Your task to perform on an android device: Show me popular games on the Play Store Image 0: 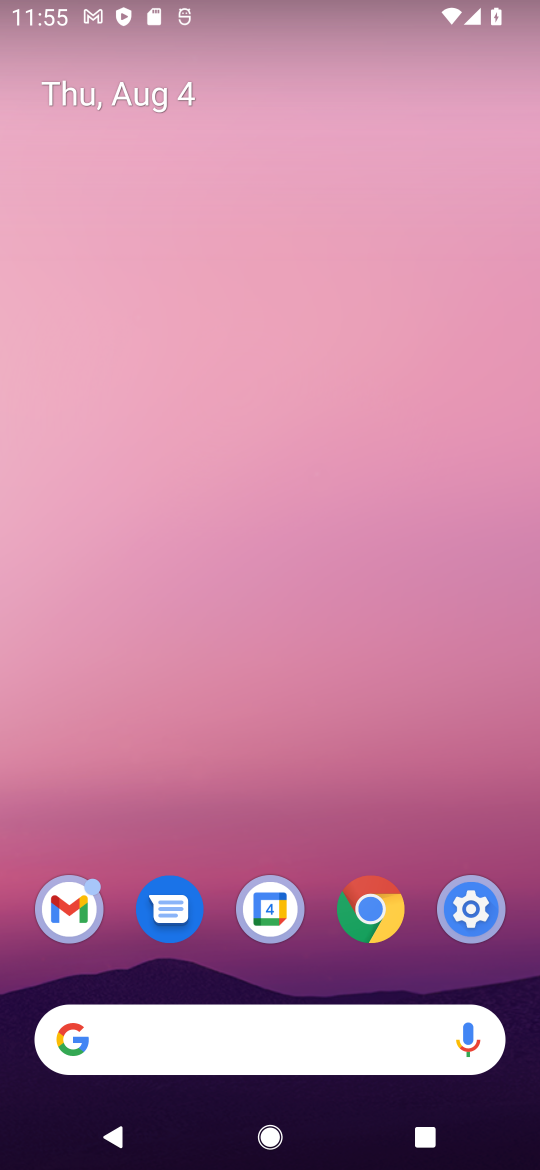
Step 0: drag from (322, 628) to (320, 275)
Your task to perform on an android device: Show me popular games on the Play Store Image 1: 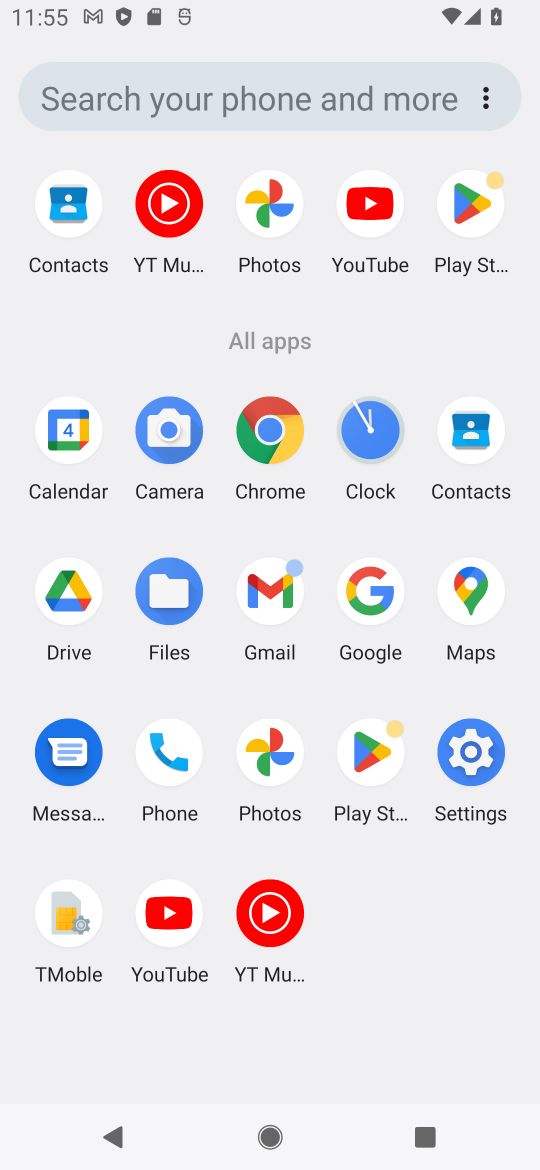
Step 1: click (368, 770)
Your task to perform on an android device: Show me popular games on the Play Store Image 2: 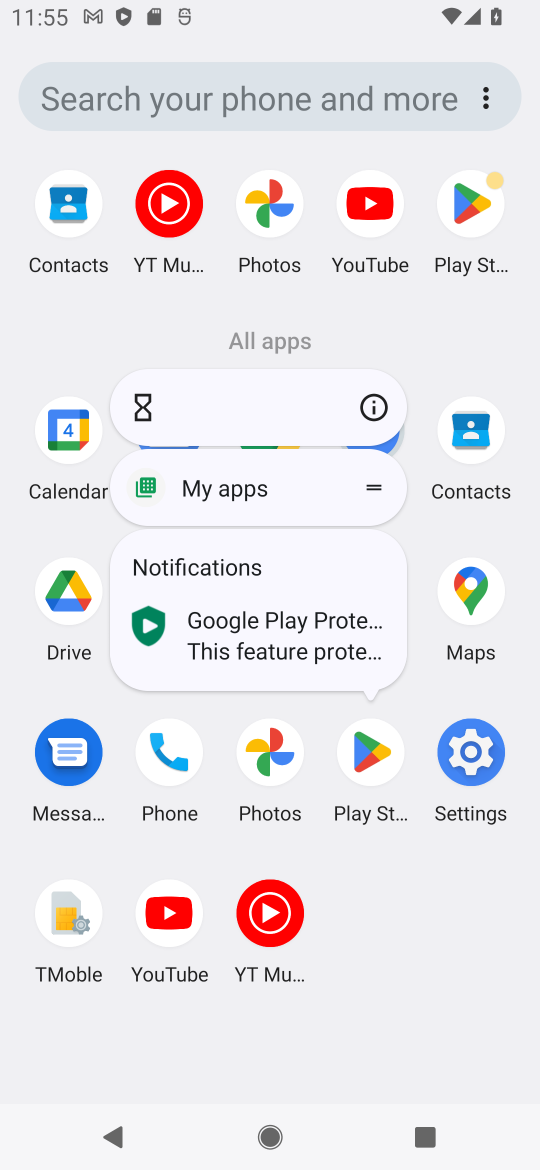
Step 2: click (385, 766)
Your task to perform on an android device: Show me popular games on the Play Store Image 3: 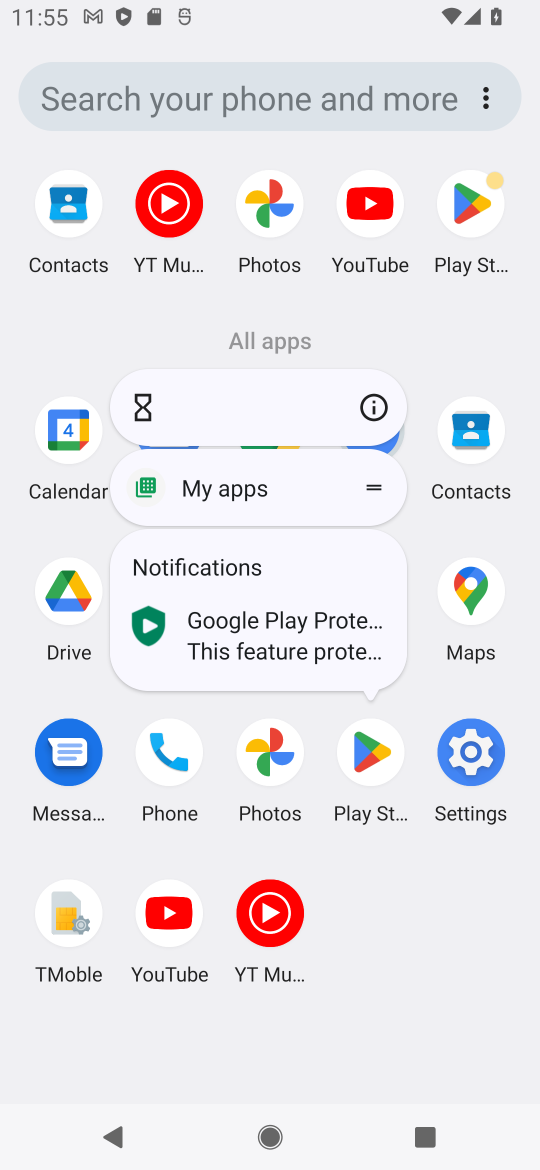
Step 3: click (435, 739)
Your task to perform on an android device: Show me popular games on the Play Store Image 4: 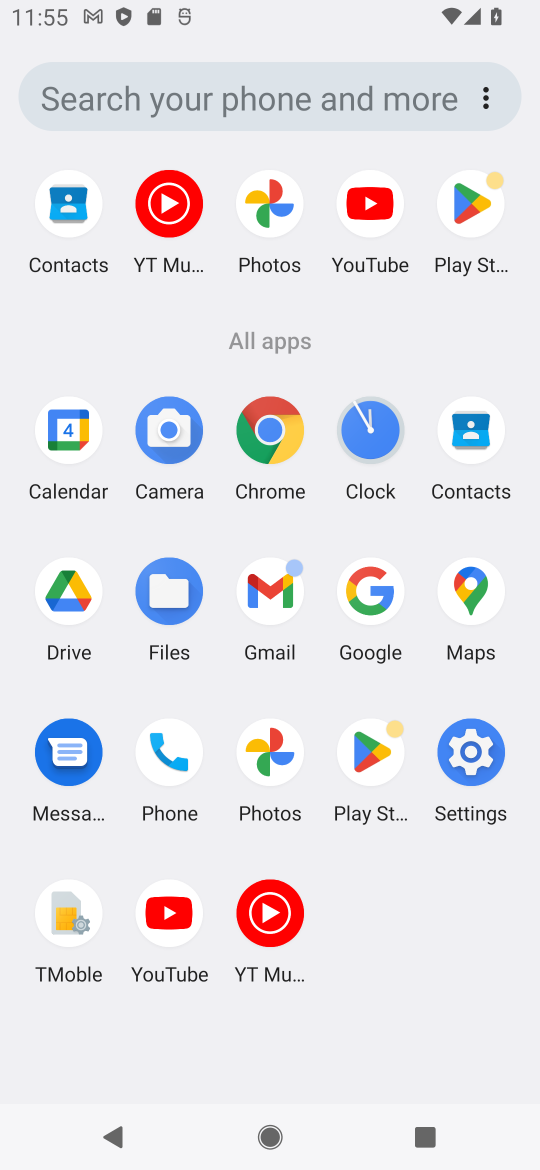
Step 4: click (380, 761)
Your task to perform on an android device: Show me popular games on the Play Store Image 5: 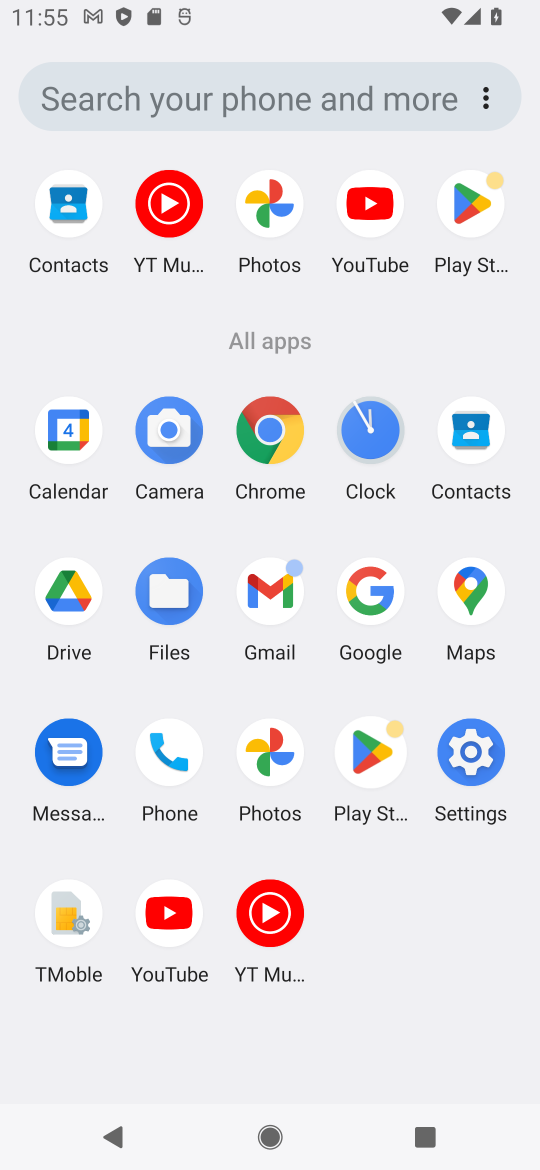
Step 5: click (380, 761)
Your task to perform on an android device: Show me popular games on the Play Store Image 6: 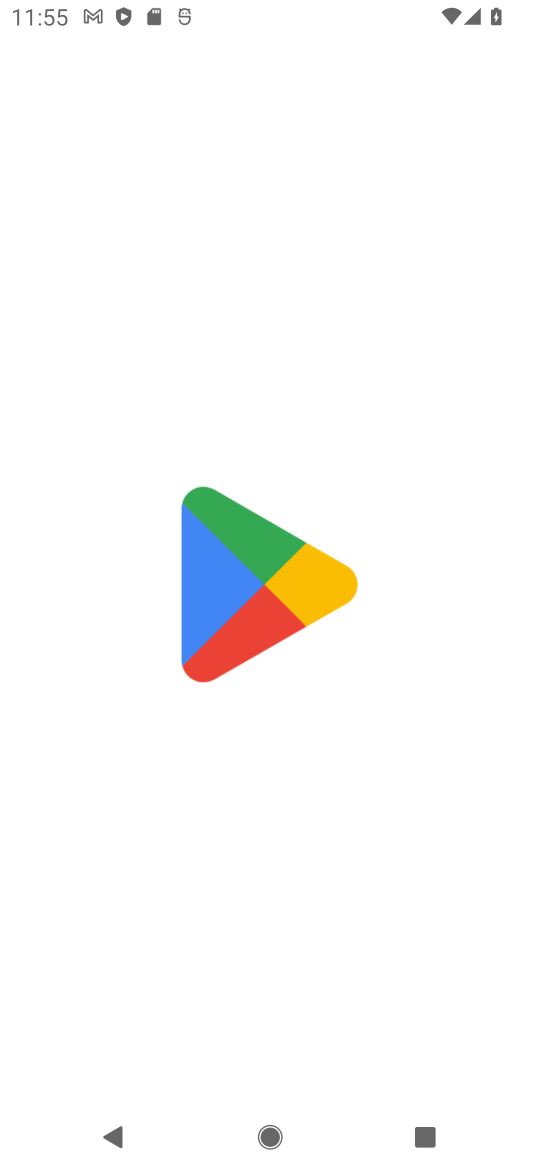
Step 6: click (341, 742)
Your task to perform on an android device: Show me popular games on the Play Store Image 7: 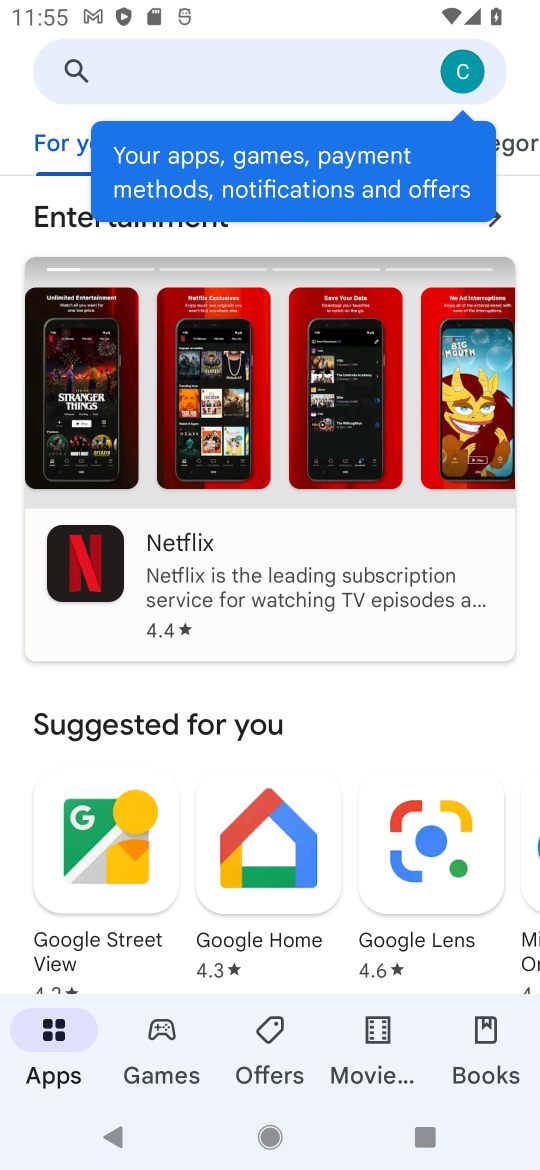
Step 7: click (133, 1041)
Your task to perform on an android device: Show me popular games on the Play Store Image 8: 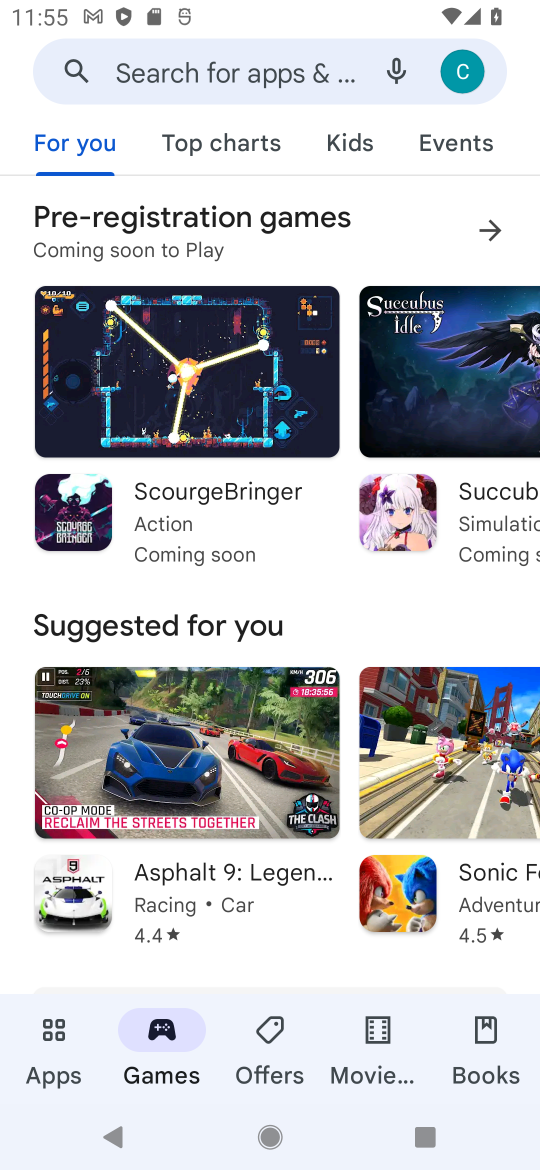
Step 8: task complete